Your task to perform on an android device: uninstall "Pluto TV - Live TV and Movies" Image 0: 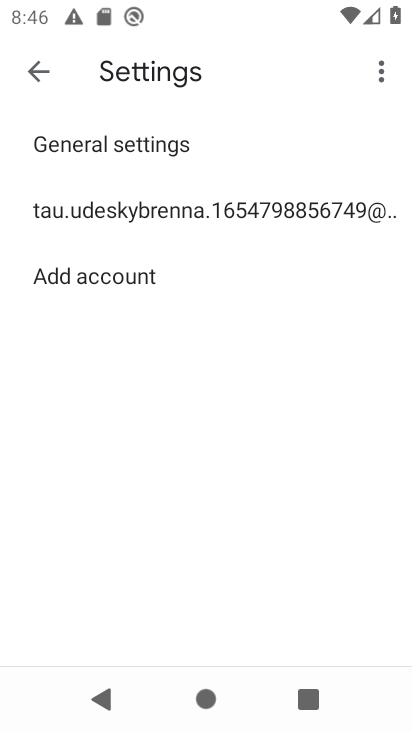
Step 0: press home button
Your task to perform on an android device: uninstall "Pluto TV - Live TV and Movies" Image 1: 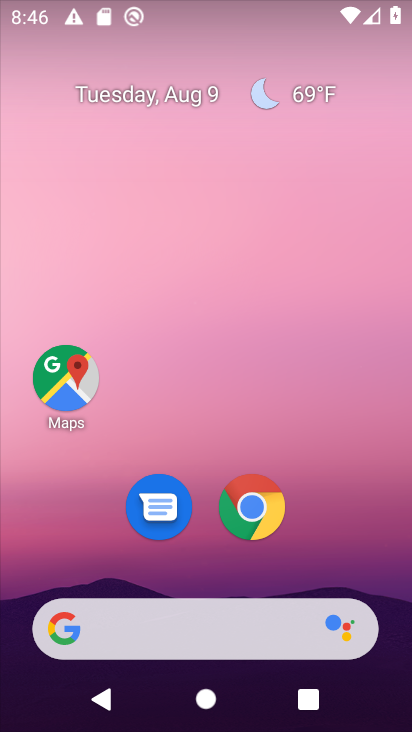
Step 1: drag from (187, 630) to (248, 146)
Your task to perform on an android device: uninstall "Pluto TV - Live TV and Movies" Image 2: 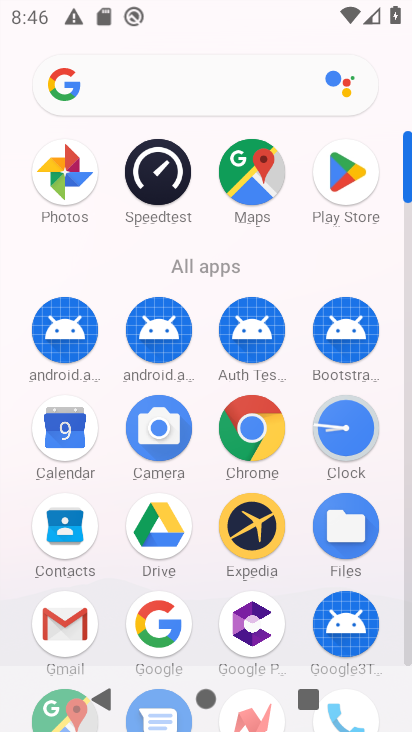
Step 2: click (341, 172)
Your task to perform on an android device: uninstall "Pluto TV - Live TV and Movies" Image 3: 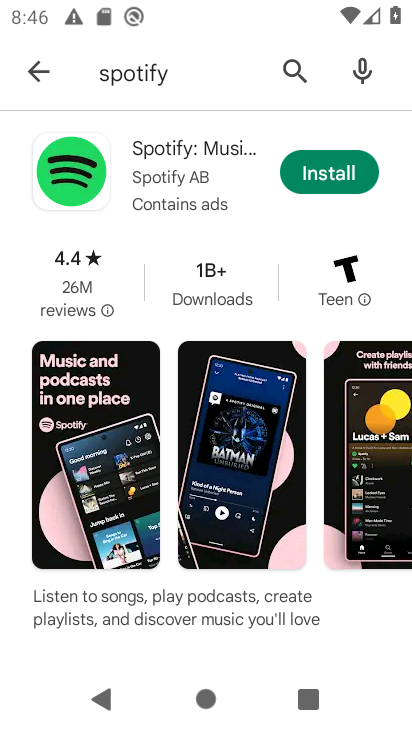
Step 3: click (285, 87)
Your task to perform on an android device: uninstall "Pluto TV - Live TV and Movies" Image 4: 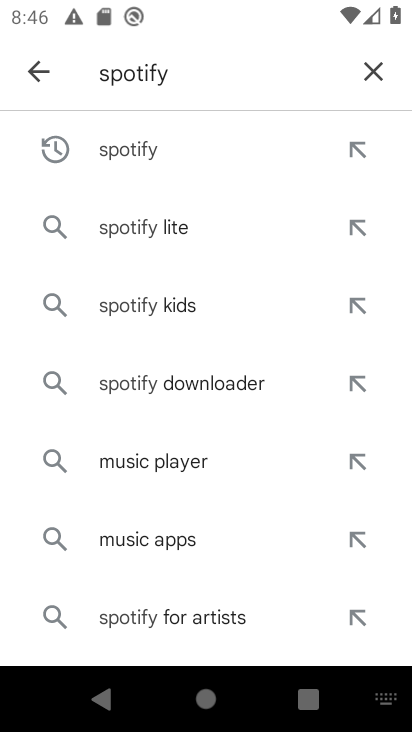
Step 4: click (375, 71)
Your task to perform on an android device: uninstall "Pluto TV - Live TV and Movies" Image 5: 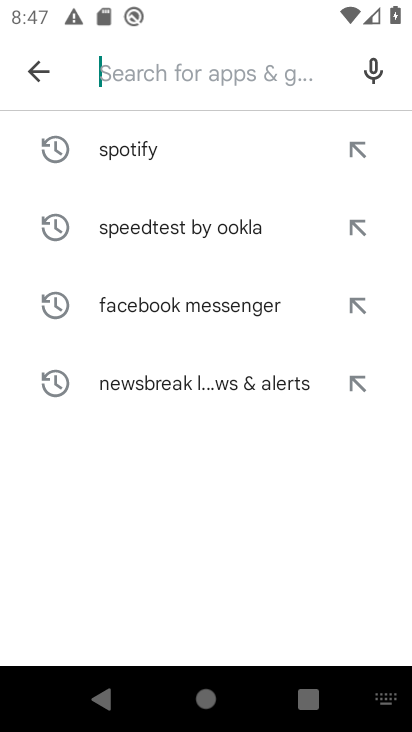
Step 5: type "Pluto TV - Live TV and Movies"
Your task to perform on an android device: uninstall "Pluto TV - Live TV and Movies" Image 6: 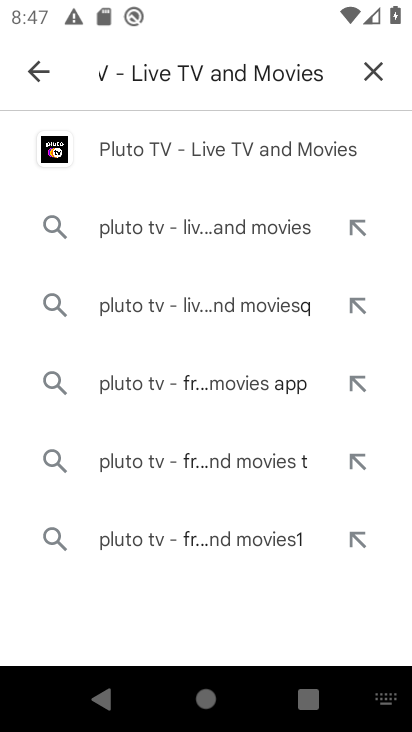
Step 6: click (293, 145)
Your task to perform on an android device: uninstall "Pluto TV - Live TV and Movies" Image 7: 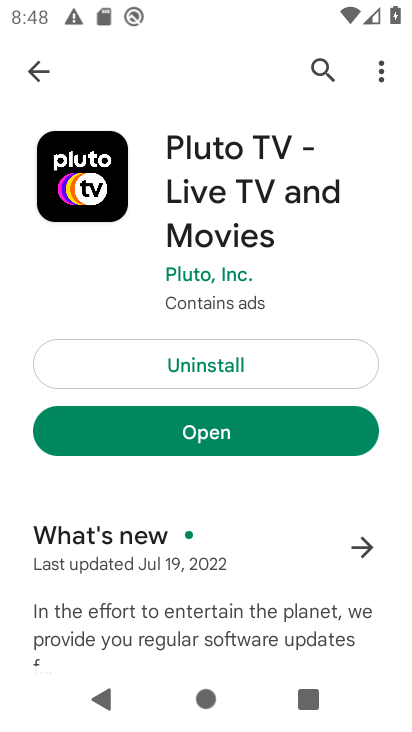
Step 7: click (229, 359)
Your task to perform on an android device: uninstall "Pluto TV - Live TV and Movies" Image 8: 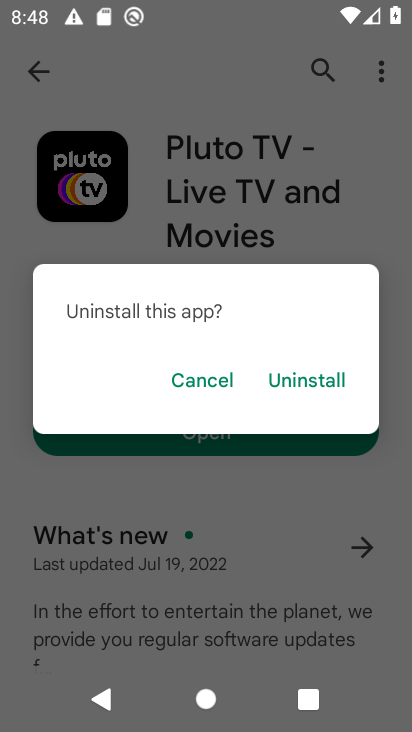
Step 8: click (297, 378)
Your task to perform on an android device: uninstall "Pluto TV - Live TV and Movies" Image 9: 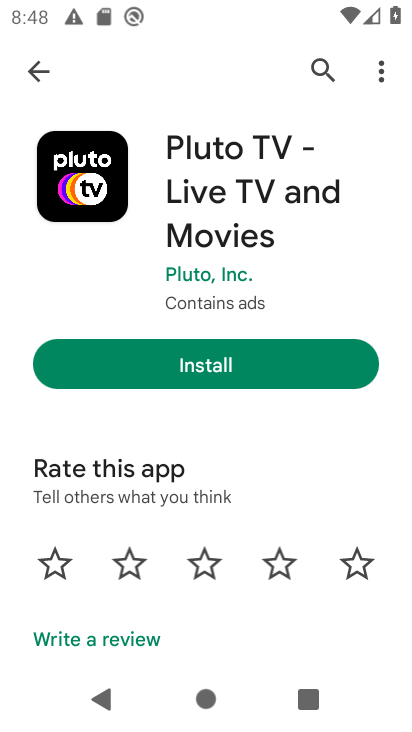
Step 9: task complete